Your task to perform on an android device: change notification settings in the gmail app Image 0: 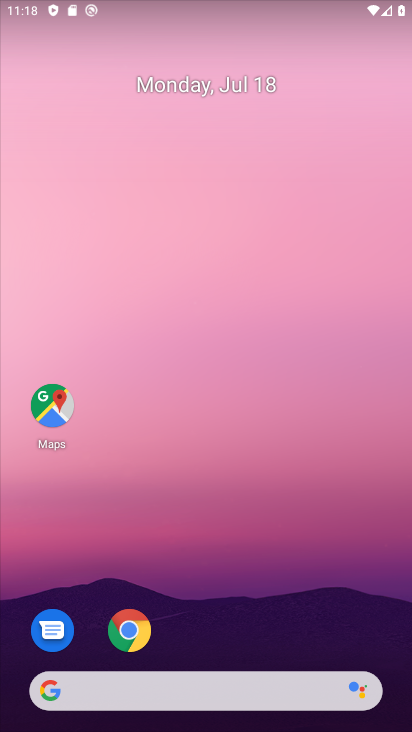
Step 0: drag from (218, 660) to (193, 68)
Your task to perform on an android device: change notification settings in the gmail app Image 1: 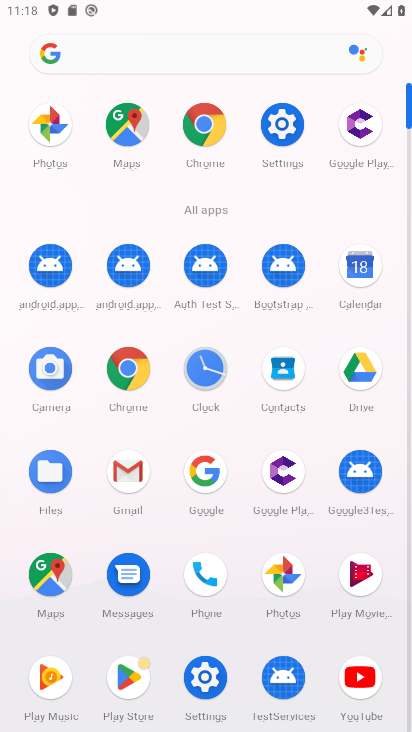
Step 1: click (271, 132)
Your task to perform on an android device: change notification settings in the gmail app Image 2: 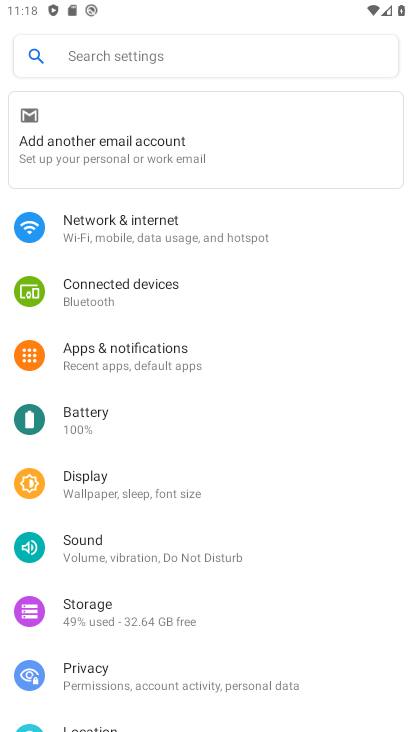
Step 2: click (161, 348)
Your task to perform on an android device: change notification settings in the gmail app Image 3: 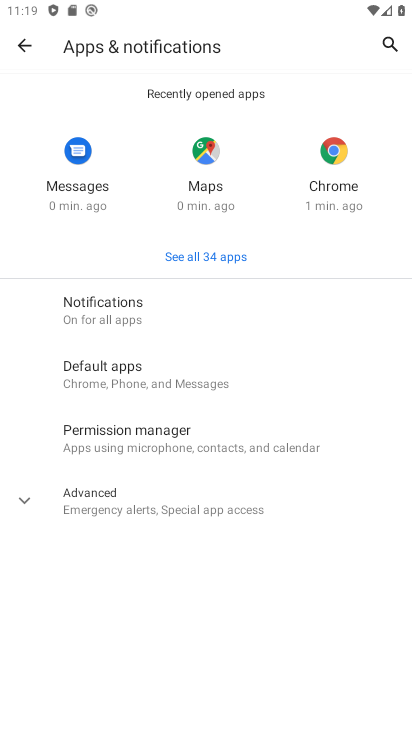
Step 3: click (194, 264)
Your task to perform on an android device: change notification settings in the gmail app Image 4: 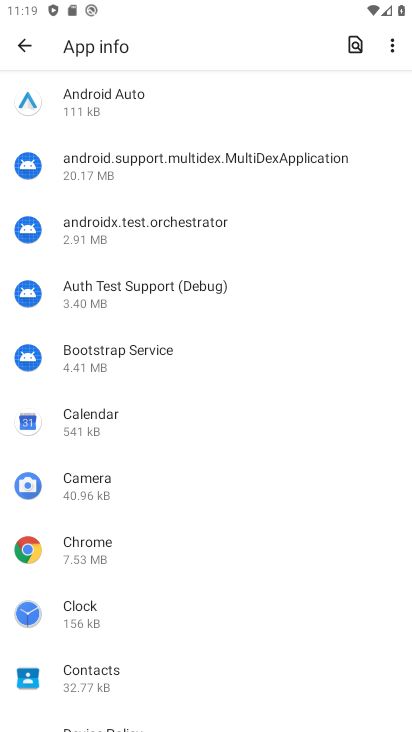
Step 4: drag from (162, 534) to (149, 95)
Your task to perform on an android device: change notification settings in the gmail app Image 5: 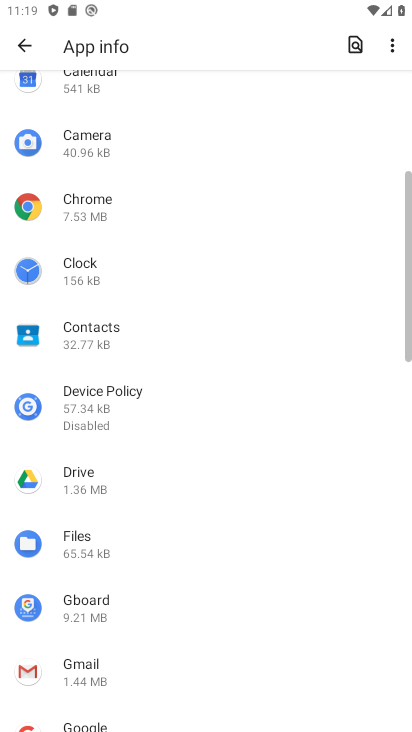
Step 5: drag from (117, 644) to (133, 120)
Your task to perform on an android device: change notification settings in the gmail app Image 6: 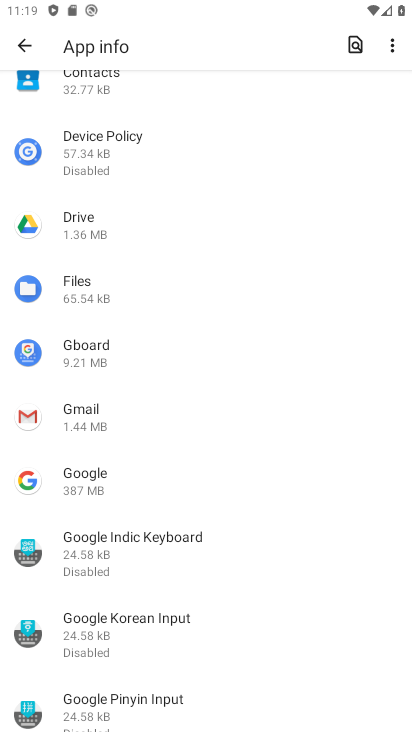
Step 6: click (119, 430)
Your task to perform on an android device: change notification settings in the gmail app Image 7: 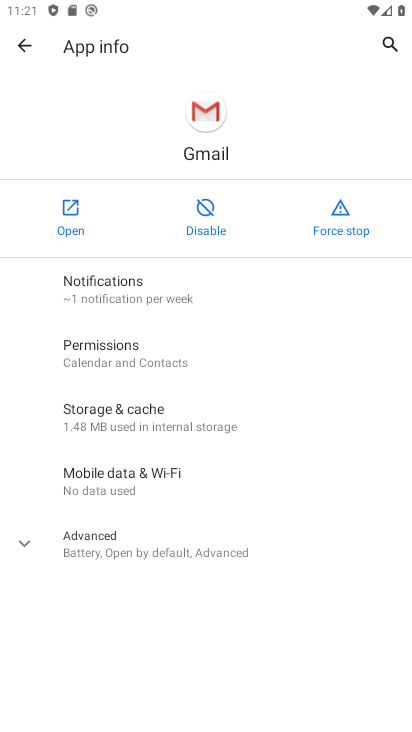
Step 7: click (107, 293)
Your task to perform on an android device: change notification settings in the gmail app Image 8: 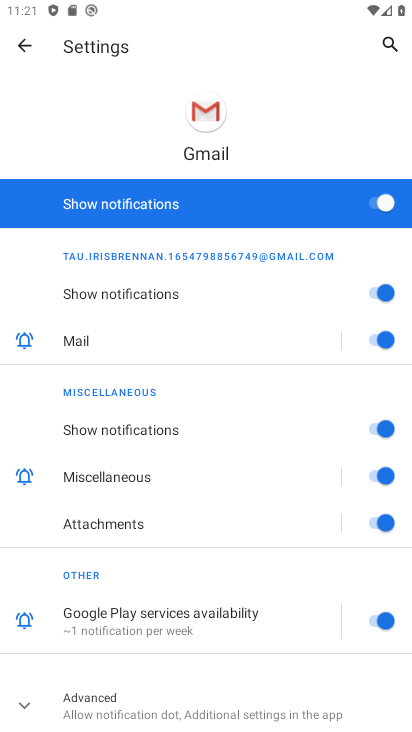
Step 8: click (388, 616)
Your task to perform on an android device: change notification settings in the gmail app Image 9: 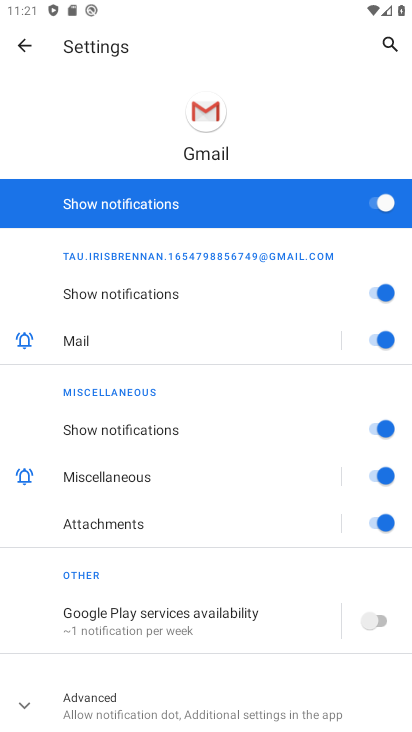
Step 9: click (379, 522)
Your task to perform on an android device: change notification settings in the gmail app Image 10: 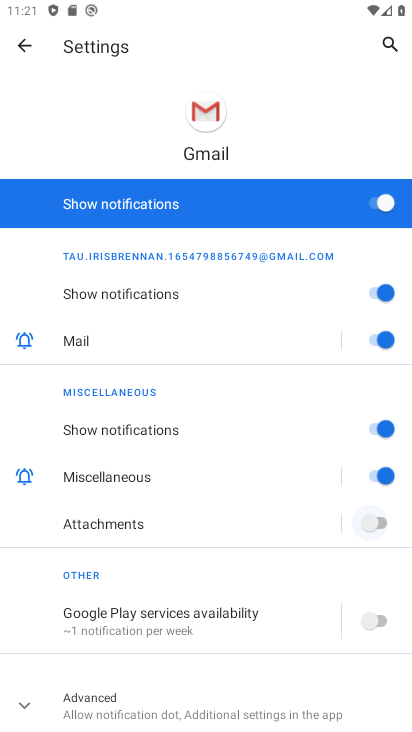
Step 10: click (388, 473)
Your task to perform on an android device: change notification settings in the gmail app Image 11: 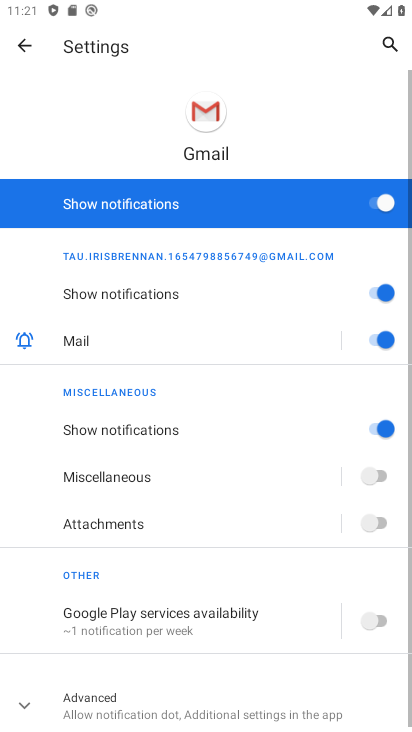
Step 11: click (383, 431)
Your task to perform on an android device: change notification settings in the gmail app Image 12: 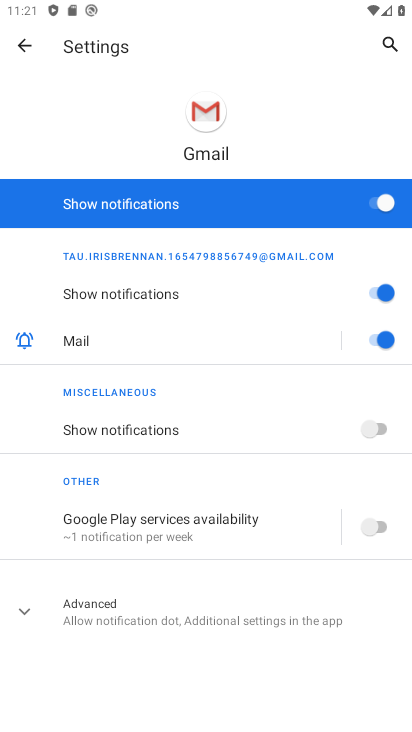
Step 12: task complete